Your task to perform on an android device: check battery use Image 0: 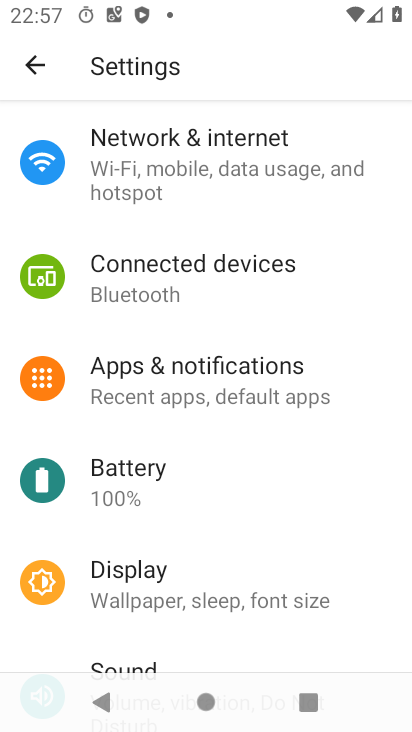
Step 0: click (142, 494)
Your task to perform on an android device: check battery use Image 1: 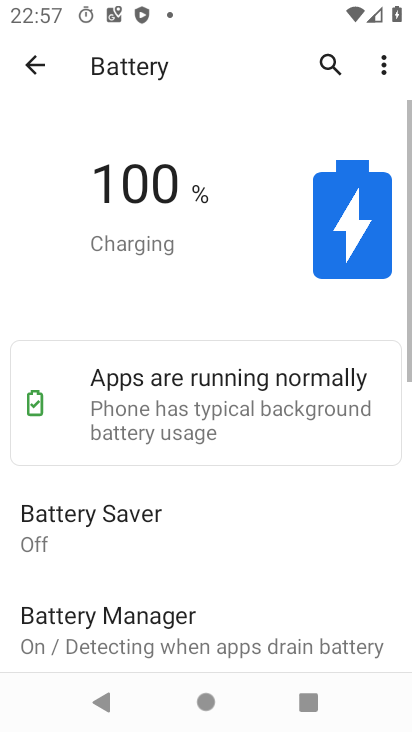
Step 1: drag from (191, 523) to (261, 162)
Your task to perform on an android device: check battery use Image 2: 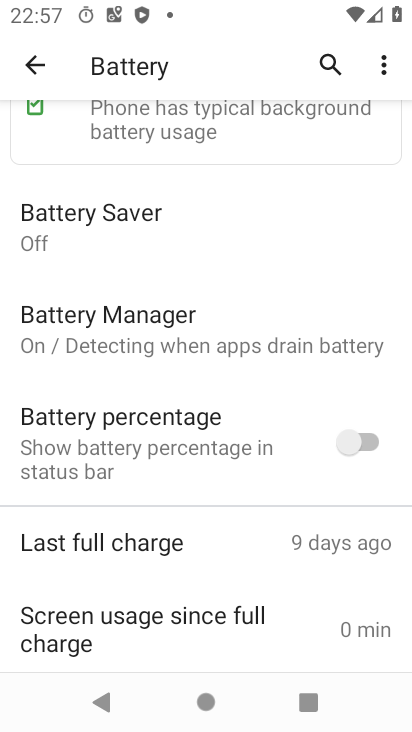
Step 2: click (386, 67)
Your task to perform on an android device: check battery use Image 3: 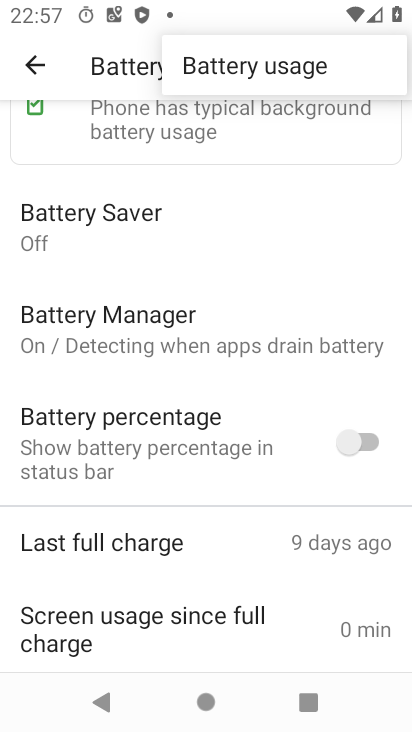
Step 3: click (349, 69)
Your task to perform on an android device: check battery use Image 4: 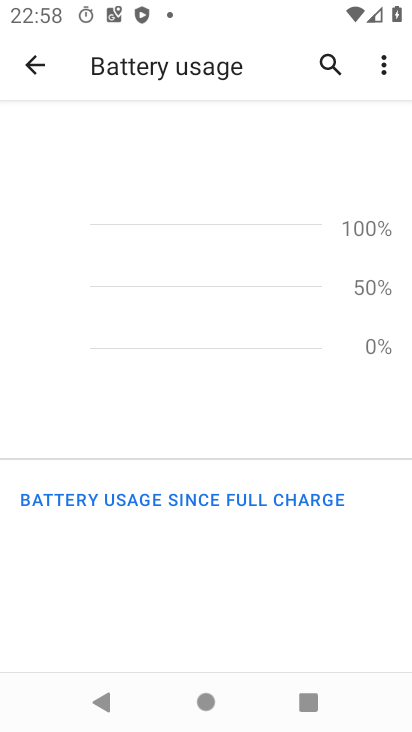
Step 4: task complete